Your task to perform on an android device: delete the emails in spam in the gmail app Image 0: 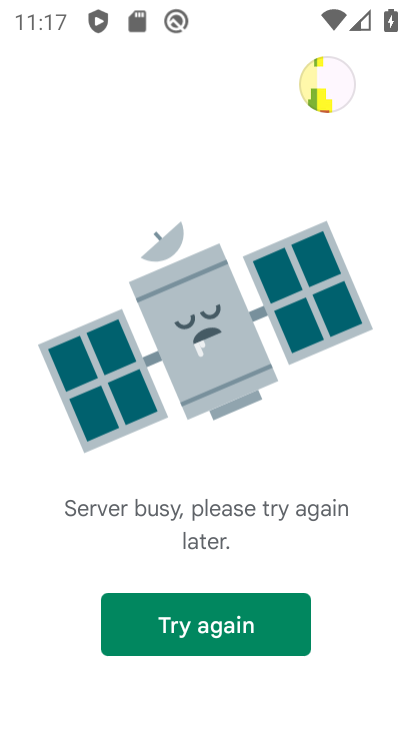
Step 0: press home button
Your task to perform on an android device: delete the emails in spam in the gmail app Image 1: 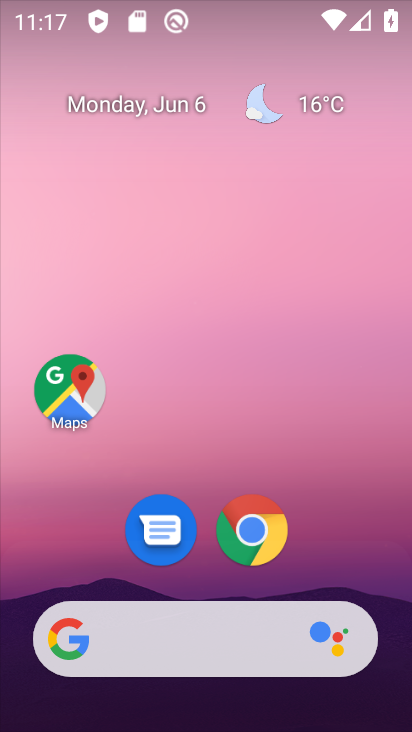
Step 1: drag from (302, 337) to (247, 66)
Your task to perform on an android device: delete the emails in spam in the gmail app Image 2: 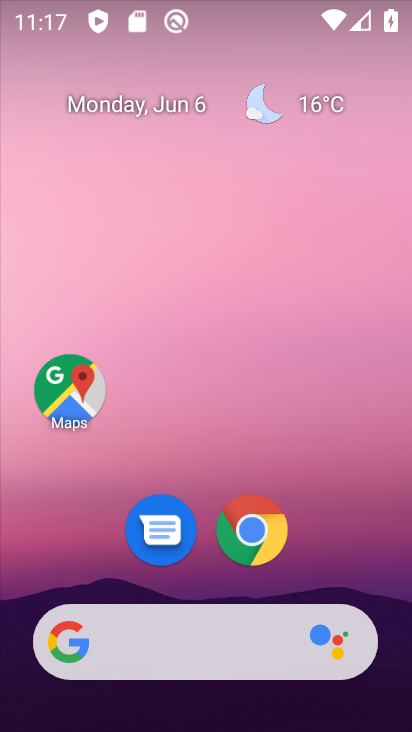
Step 2: drag from (328, 443) to (203, 2)
Your task to perform on an android device: delete the emails in spam in the gmail app Image 3: 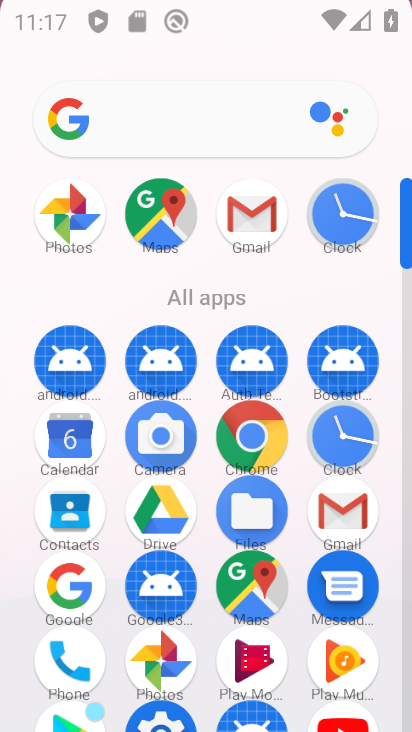
Step 3: click (250, 204)
Your task to perform on an android device: delete the emails in spam in the gmail app Image 4: 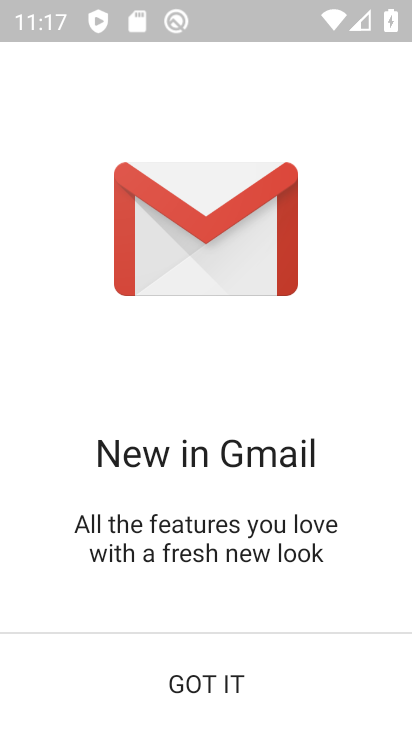
Step 4: click (238, 688)
Your task to perform on an android device: delete the emails in spam in the gmail app Image 5: 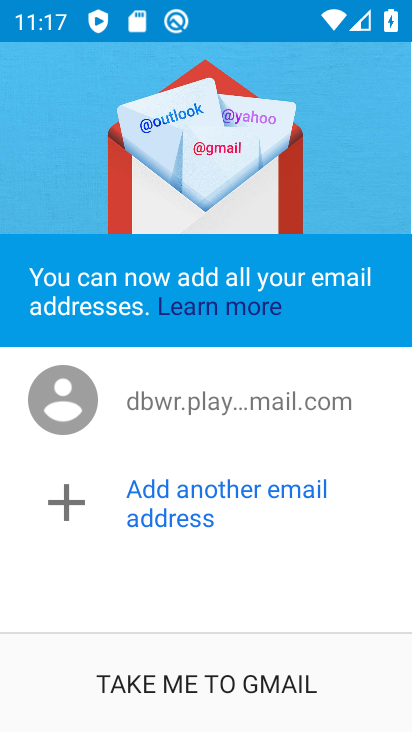
Step 5: click (233, 686)
Your task to perform on an android device: delete the emails in spam in the gmail app Image 6: 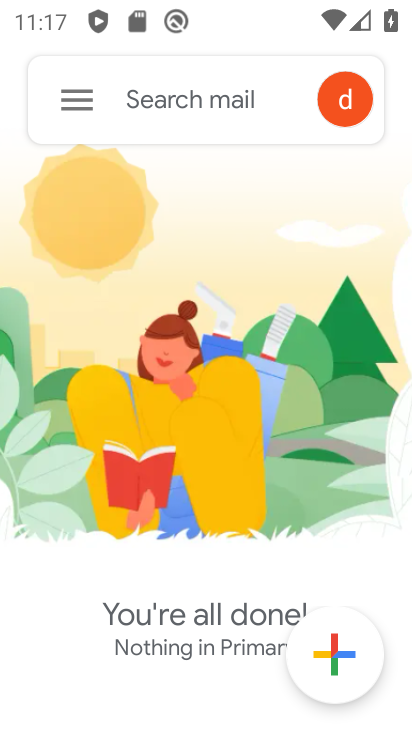
Step 6: click (79, 105)
Your task to perform on an android device: delete the emails in spam in the gmail app Image 7: 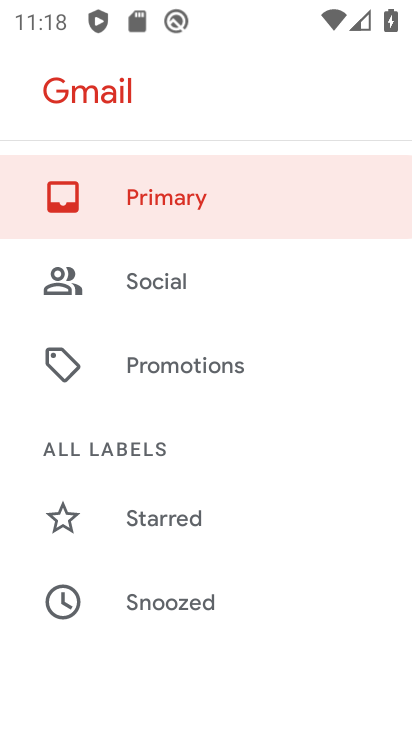
Step 7: drag from (221, 591) to (221, 37)
Your task to perform on an android device: delete the emails in spam in the gmail app Image 8: 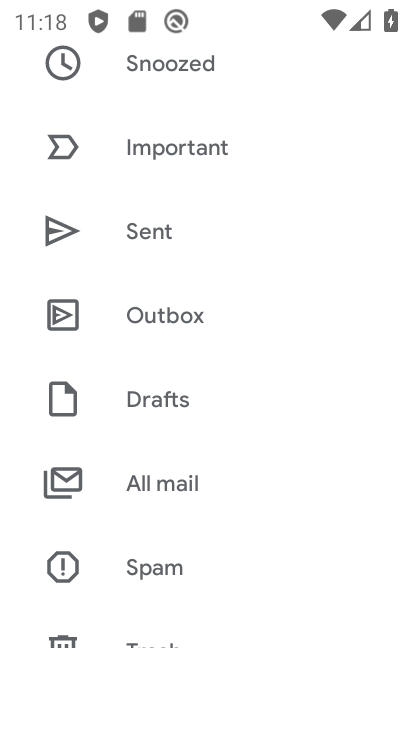
Step 8: drag from (253, 461) to (246, 75)
Your task to perform on an android device: delete the emails in spam in the gmail app Image 9: 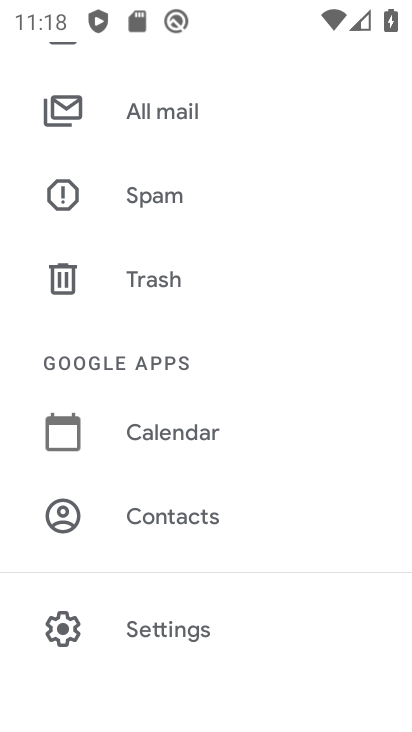
Step 9: click (209, 117)
Your task to perform on an android device: delete the emails in spam in the gmail app Image 10: 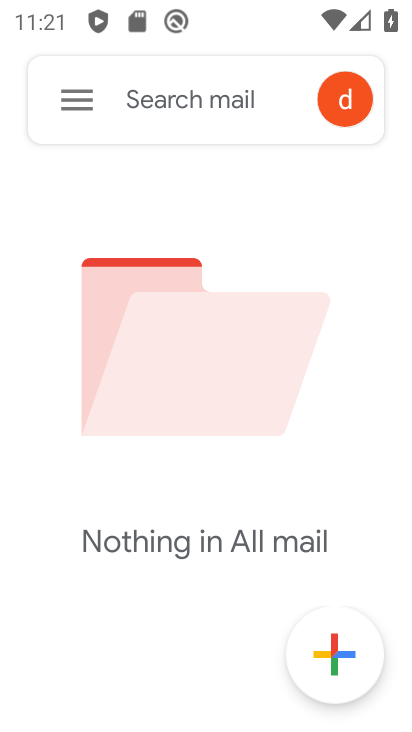
Step 10: task complete